Your task to perform on an android device: check google app version Image 0: 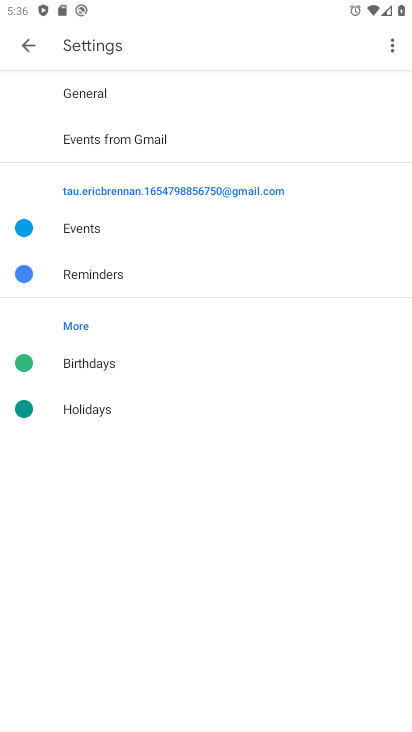
Step 0: press home button
Your task to perform on an android device: check google app version Image 1: 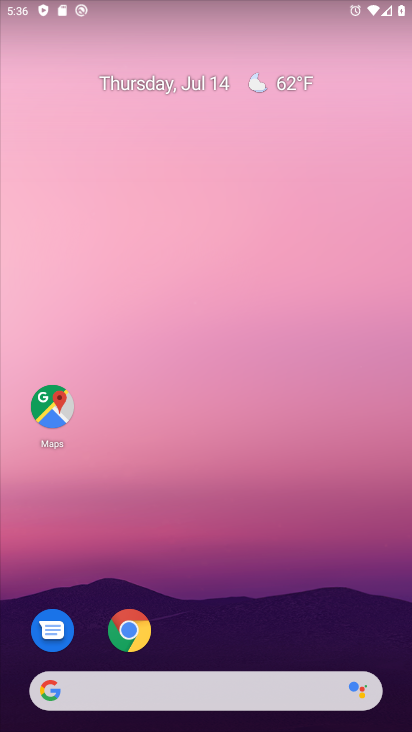
Step 1: drag from (225, 633) to (209, 58)
Your task to perform on an android device: check google app version Image 2: 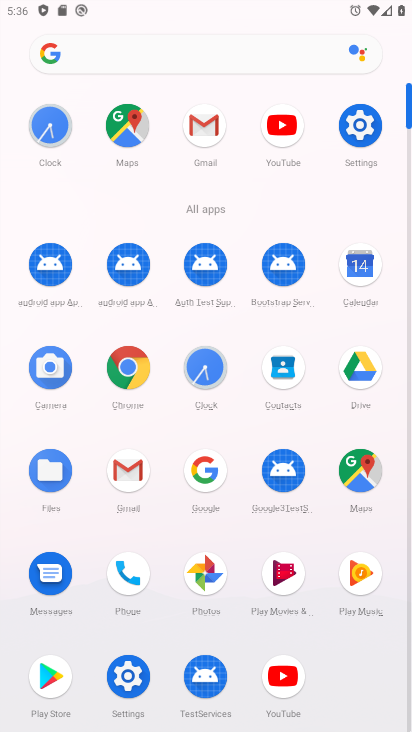
Step 2: click (198, 468)
Your task to perform on an android device: check google app version Image 3: 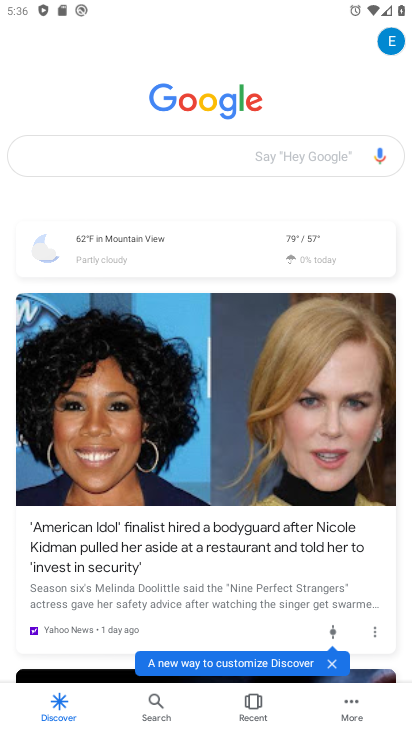
Step 3: click (344, 703)
Your task to perform on an android device: check google app version Image 4: 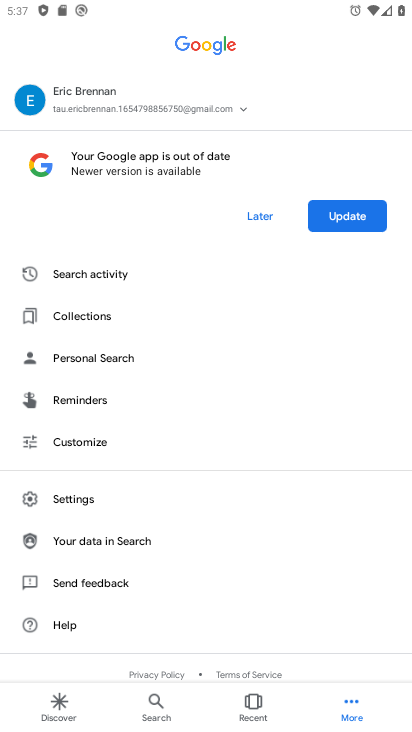
Step 4: click (115, 493)
Your task to perform on an android device: check google app version Image 5: 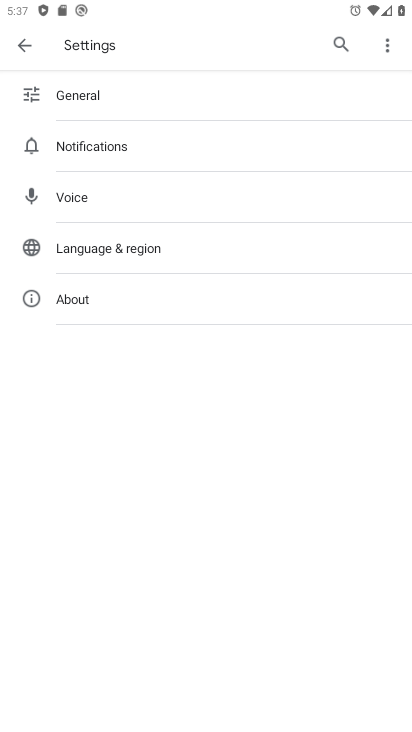
Step 5: click (73, 291)
Your task to perform on an android device: check google app version Image 6: 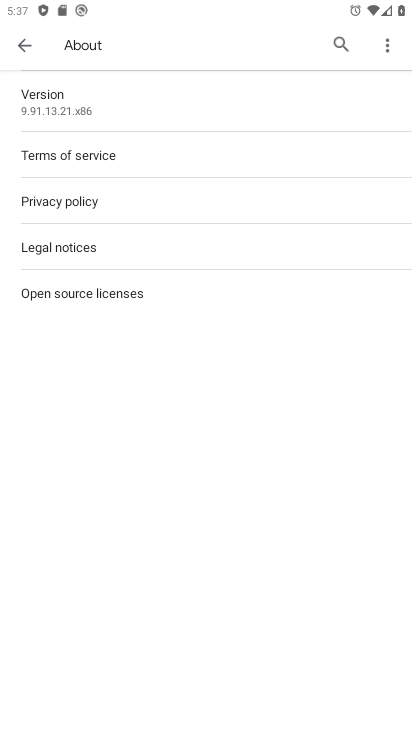
Step 6: task complete